Your task to perform on an android device: Open Yahoo.com Image 0: 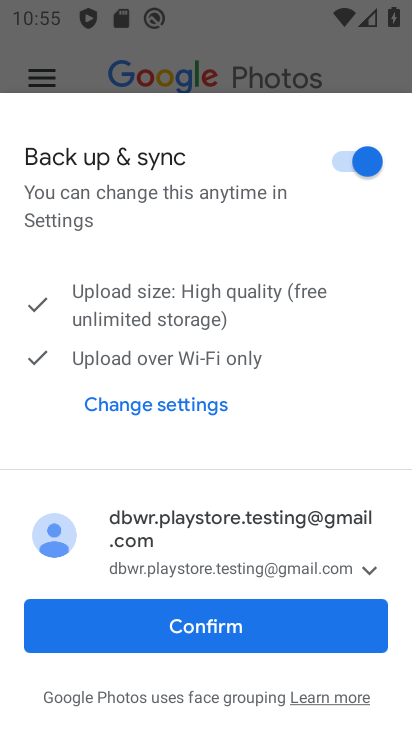
Step 0: press home button
Your task to perform on an android device: Open Yahoo.com Image 1: 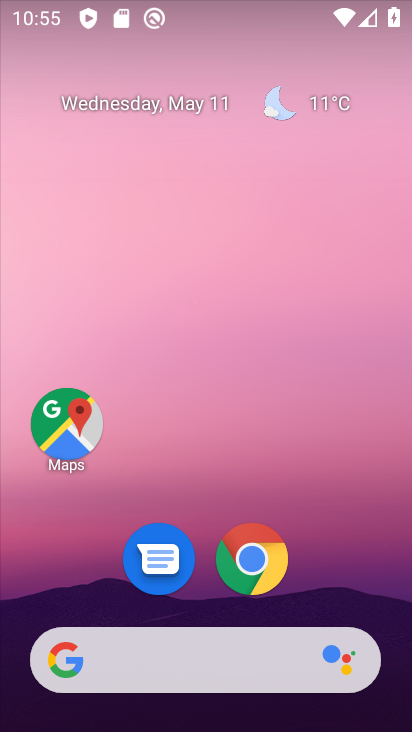
Step 1: click (258, 558)
Your task to perform on an android device: Open Yahoo.com Image 2: 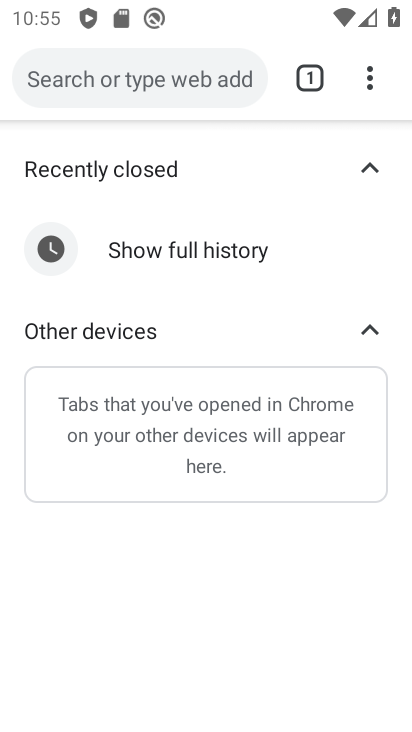
Step 2: click (309, 79)
Your task to perform on an android device: Open Yahoo.com Image 3: 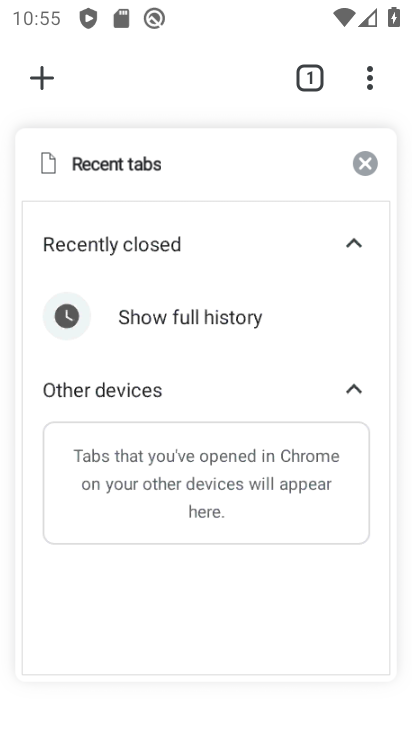
Step 3: click (39, 79)
Your task to perform on an android device: Open Yahoo.com Image 4: 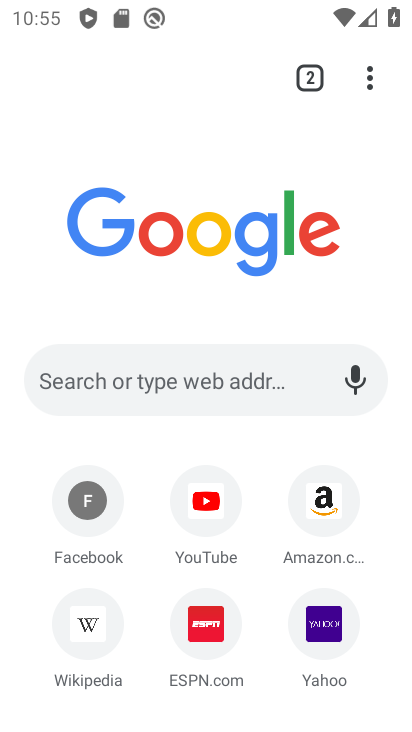
Step 4: click (335, 619)
Your task to perform on an android device: Open Yahoo.com Image 5: 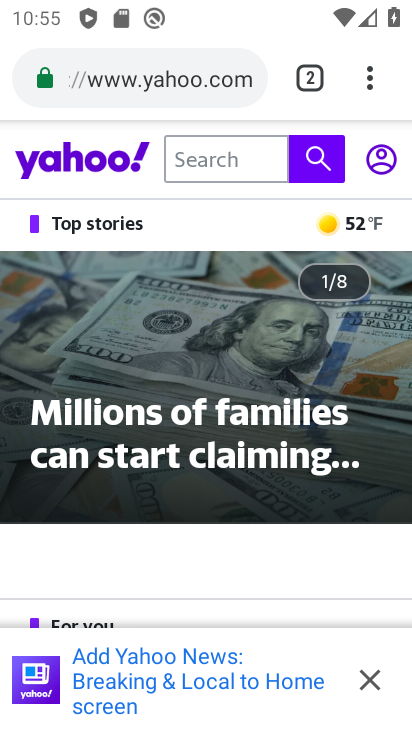
Step 5: task complete